Your task to perform on an android device: delete the emails in spam in the gmail app Image 0: 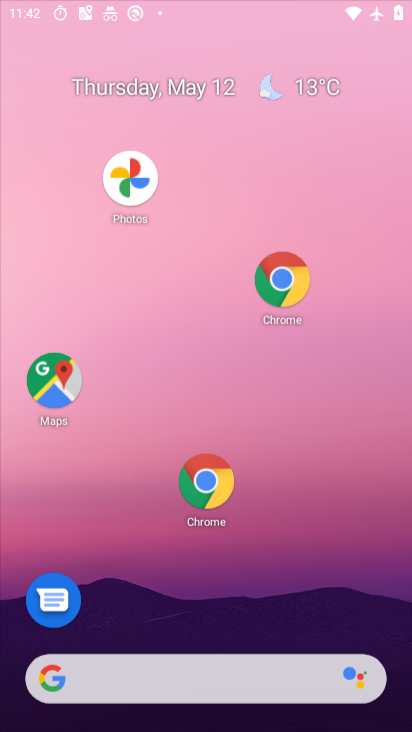
Step 0: drag from (274, 591) to (63, 95)
Your task to perform on an android device: delete the emails in spam in the gmail app Image 1: 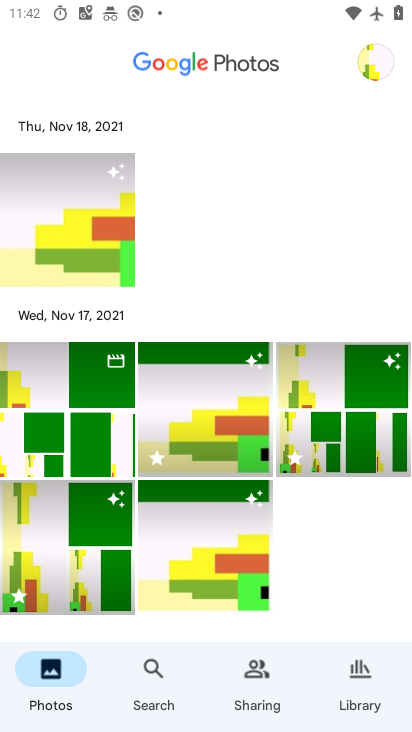
Step 1: press home button
Your task to perform on an android device: delete the emails in spam in the gmail app Image 2: 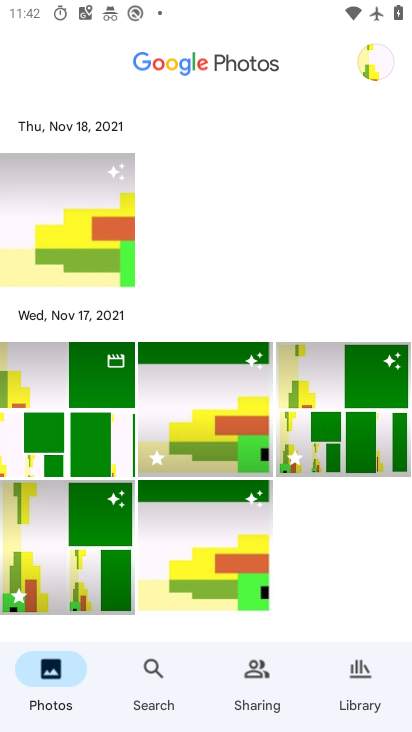
Step 2: press home button
Your task to perform on an android device: delete the emails in spam in the gmail app Image 3: 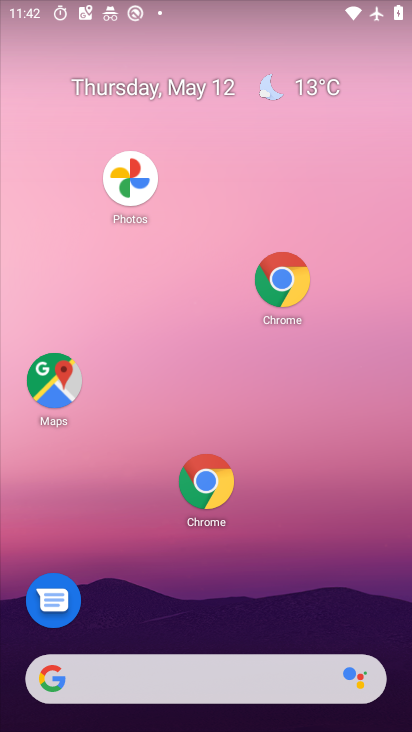
Step 3: drag from (221, 285) to (146, 72)
Your task to perform on an android device: delete the emails in spam in the gmail app Image 4: 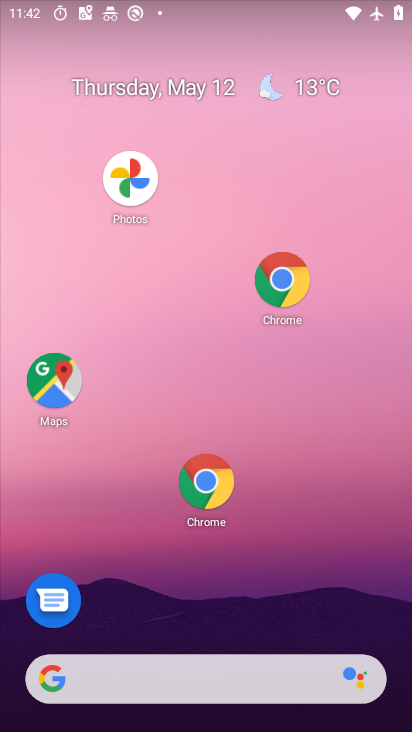
Step 4: drag from (266, 566) to (128, 45)
Your task to perform on an android device: delete the emails in spam in the gmail app Image 5: 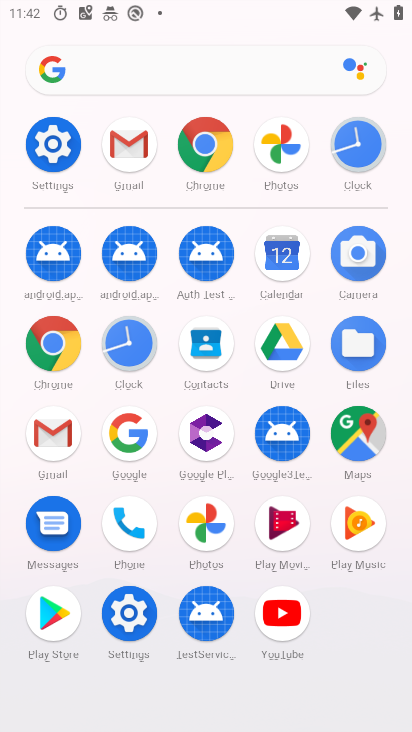
Step 5: click (39, 425)
Your task to perform on an android device: delete the emails in spam in the gmail app Image 6: 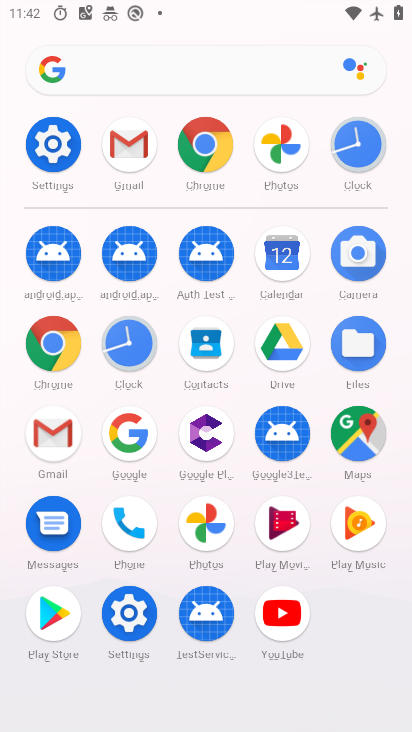
Step 6: click (40, 427)
Your task to perform on an android device: delete the emails in spam in the gmail app Image 7: 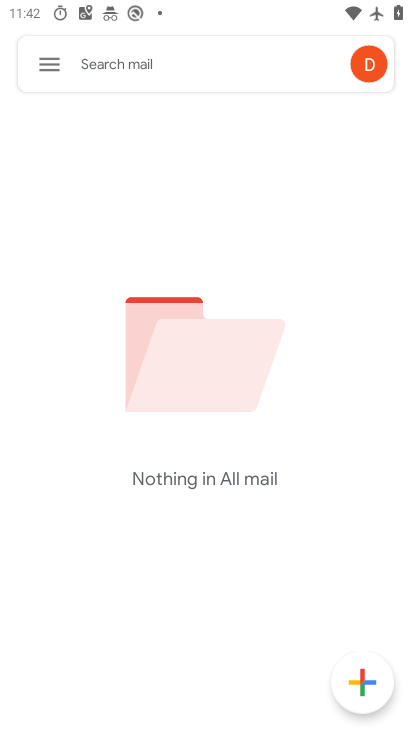
Step 7: click (46, 74)
Your task to perform on an android device: delete the emails in spam in the gmail app Image 8: 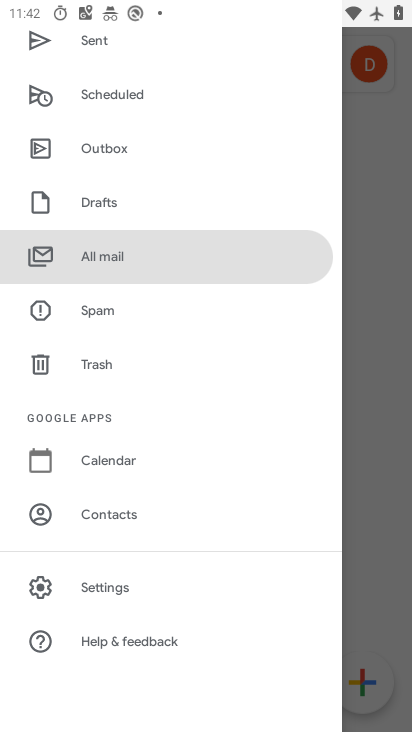
Step 8: click (101, 313)
Your task to perform on an android device: delete the emails in spam in the gmail app Image 9: 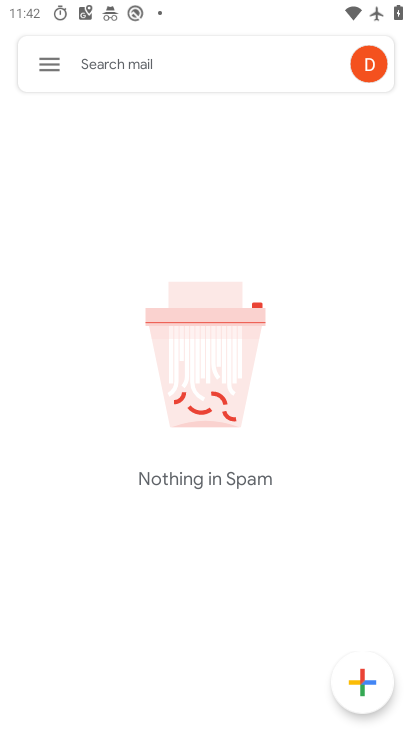
Step 9: task complete